Your task to perform on an android device: turn off airplane mode Image 0: 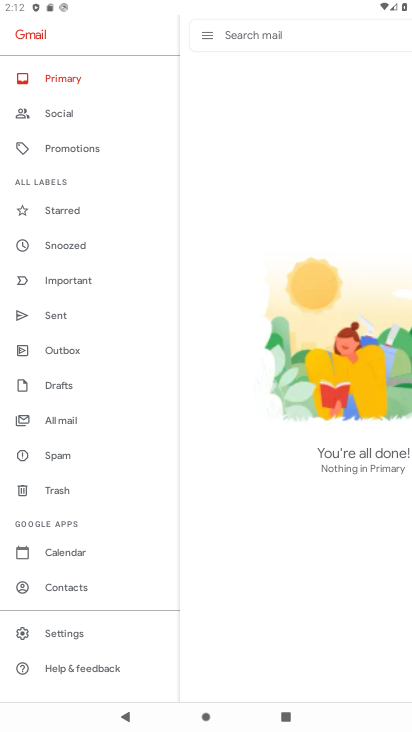
Step 0: press back button
Your task to perform on an android device: turn off airplane mode Image 1: 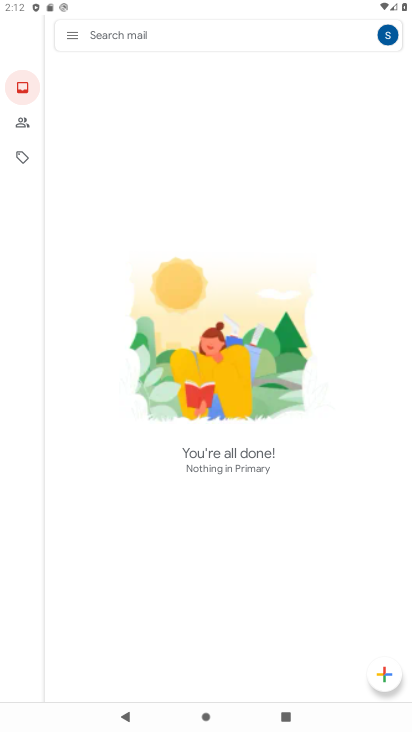
Step 1: press home button
Your task to perform on an android device: turn off airplane mode Image 2: 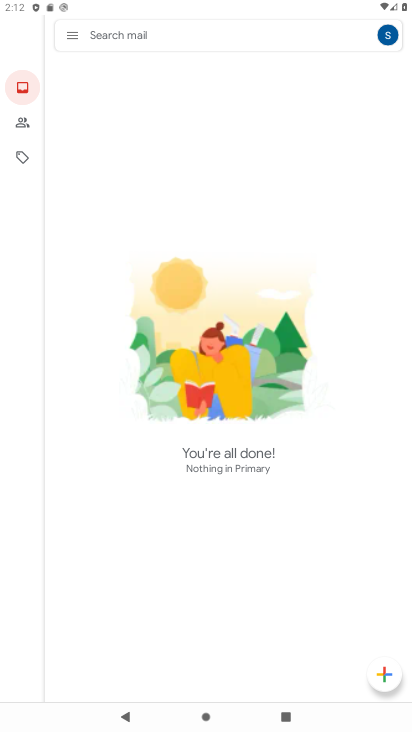
Step 2: press home button
Your task to perform on an android device: turn off airplane mode Image 3: 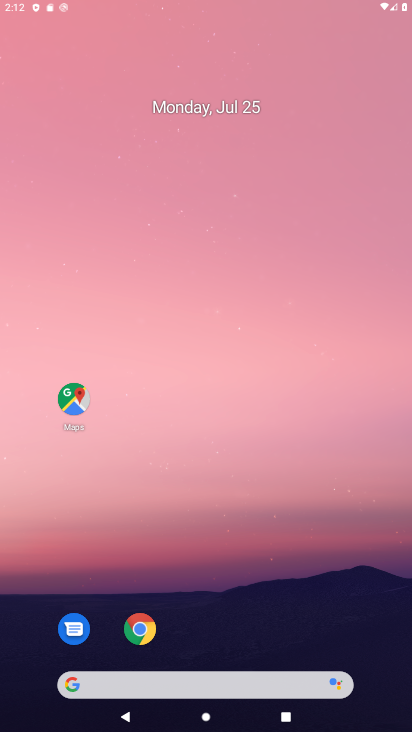
Step 3: press back button
Your task to perform on an android device: turn off airplane mode Image 4: 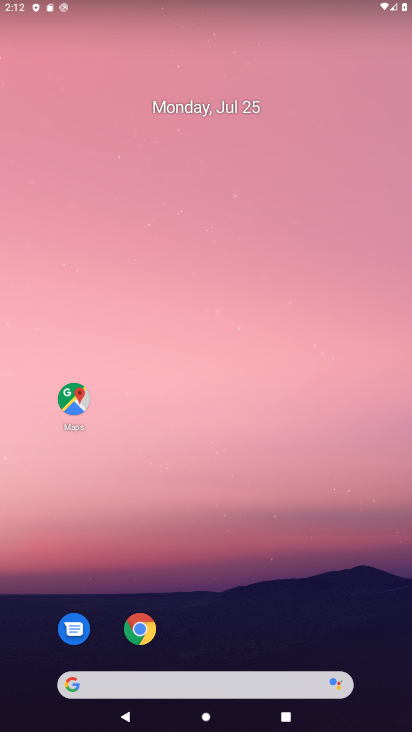
Step 4: drag from (252, 624) to (170, 12)
Your task to perform on an android device: turn off airplane mode Image 5: 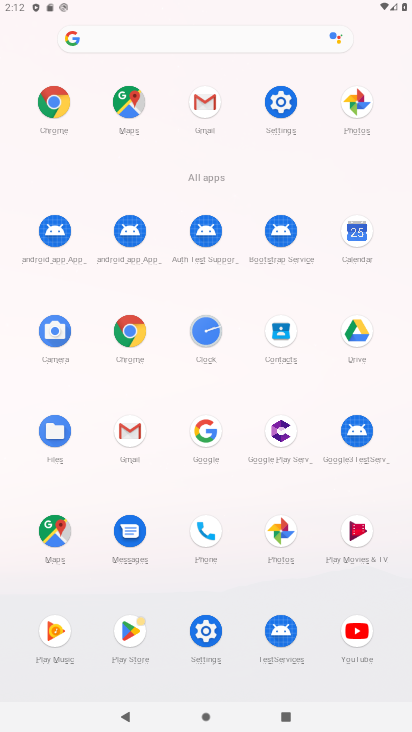
Step 5: click (280, 97)
Your task to perform on an android device: turn off airplane mode Image 6: 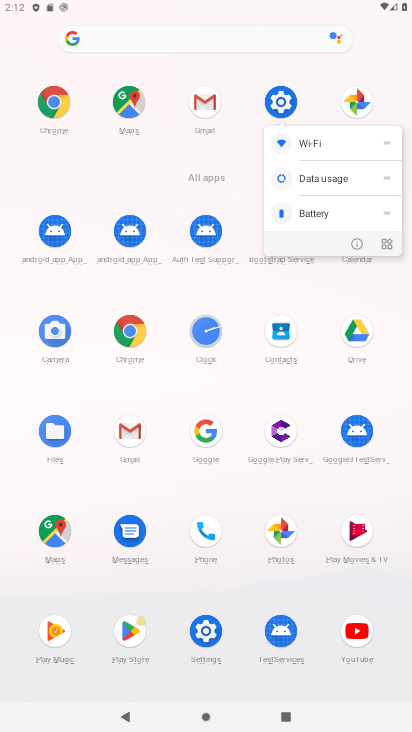
Step 6: click (281, 98)
Your task to perform on an android device: turn off airplane mode Image 7: 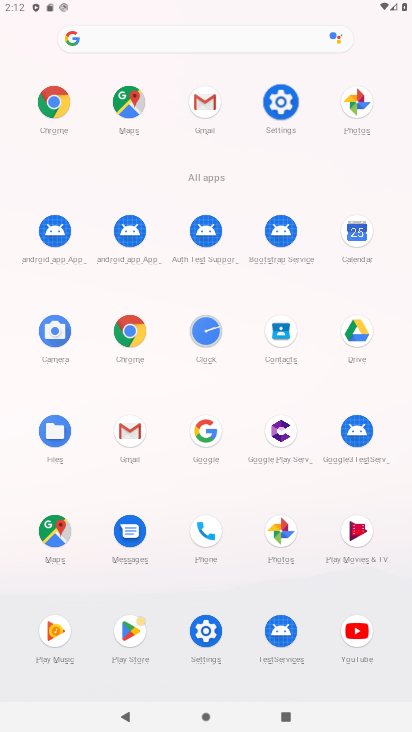
Step 7: click (281, 97)
Your task to perform on an android device: turn off airplane mode Image 8: 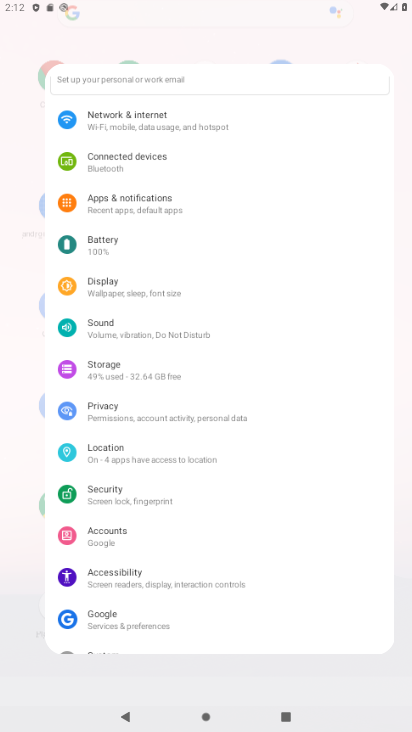
Step 8: click (281, 97)
Your task to perform on an android device: turn off airplane mode Image 9: 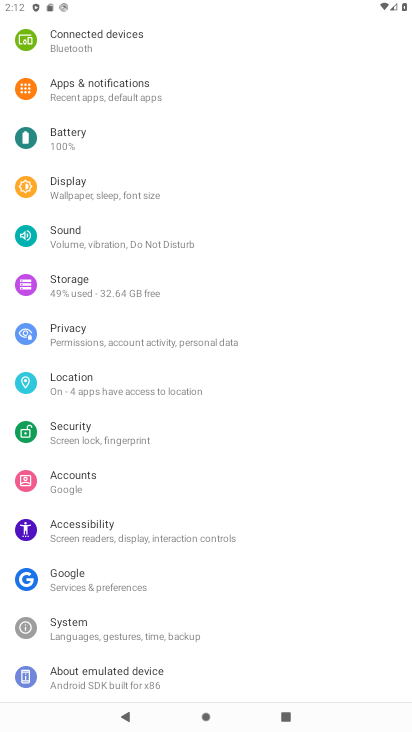
Step 9: click (281, 97)
Your task to perform on an android device: turn off airplane mode Image 10: 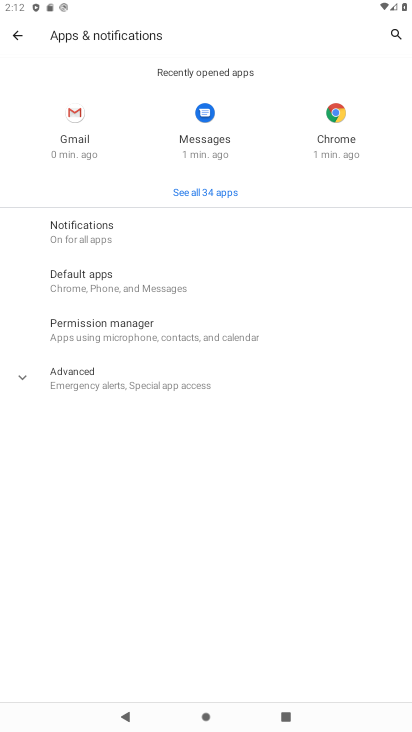
Step 10: click (13, 29)
Your task to perform on an android device: turn off airplane mode Image 11: 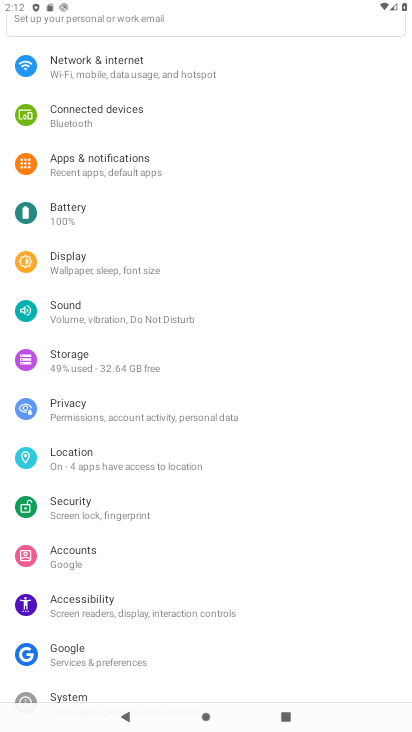
Step 11: drag from (102, 161) to (104, 671)
Your task to perform on an android device: turn off airplane mode Image 12: 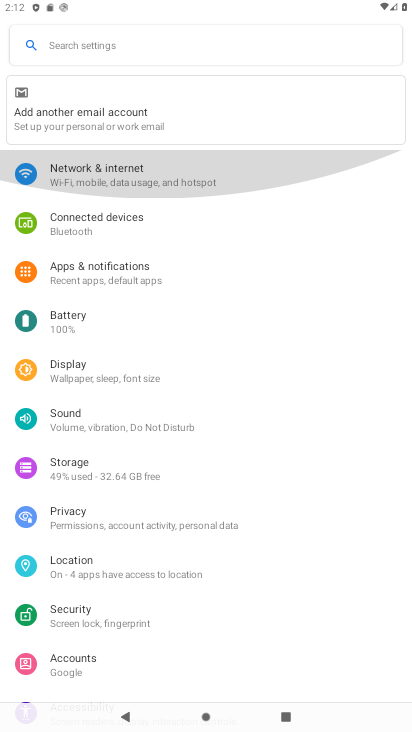
Step 12: drag from (113, 129) to (151, 572)
Your task to perform on an android device: turn off airplane mode Image 13: 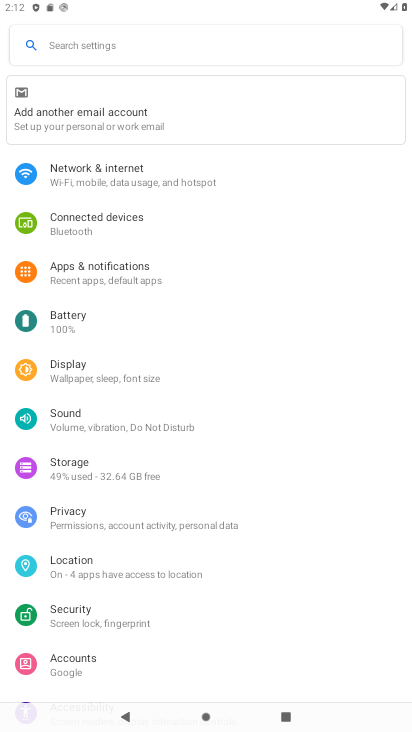
Step 13: click (103, 182)
Your task to perform on an android device: turn off airplane mode Image 14: 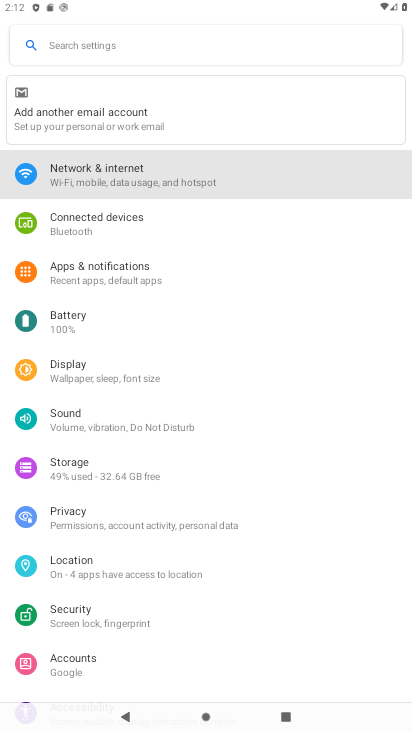
Step 14: click (102, 181)
Your task to perform on an android device: turn off airplane mode Image 15: 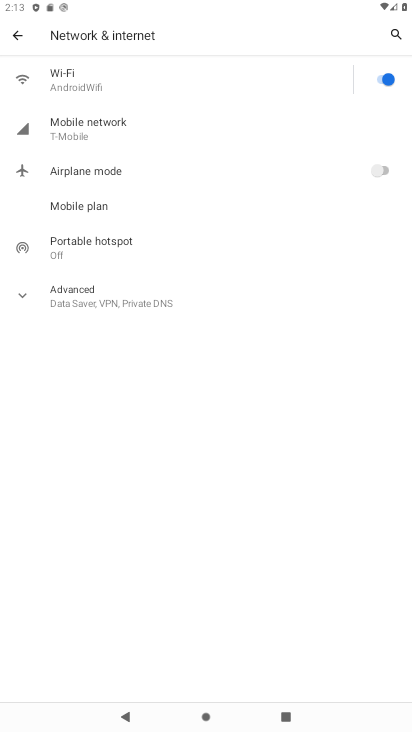
Step 15: click (381, 177)
Your task to perform on an android device: turn off airplane mode Image 16: 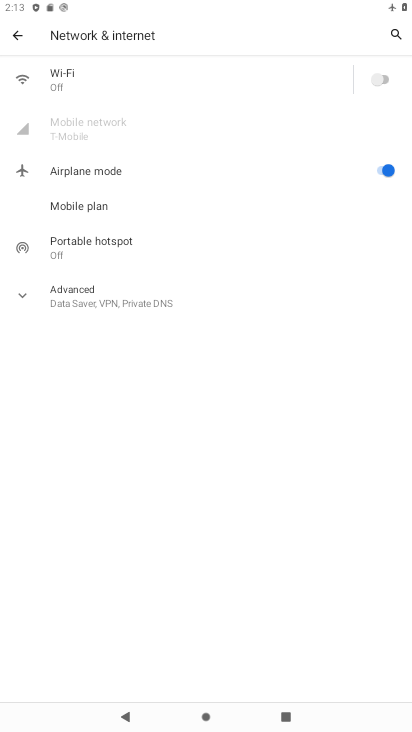
Step 16: click (390, 168)
Your task to perform on an android device: turn off airplane mode Image 17: 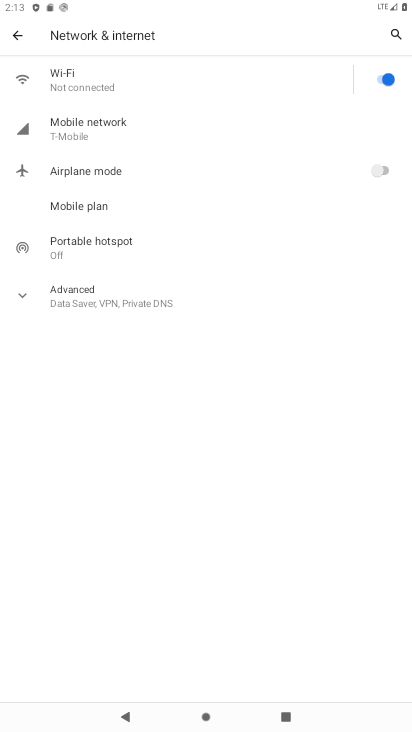
Step 17: task complete